Your task to perform on an android device: Open calendar and show me the second week of next month Image 0: 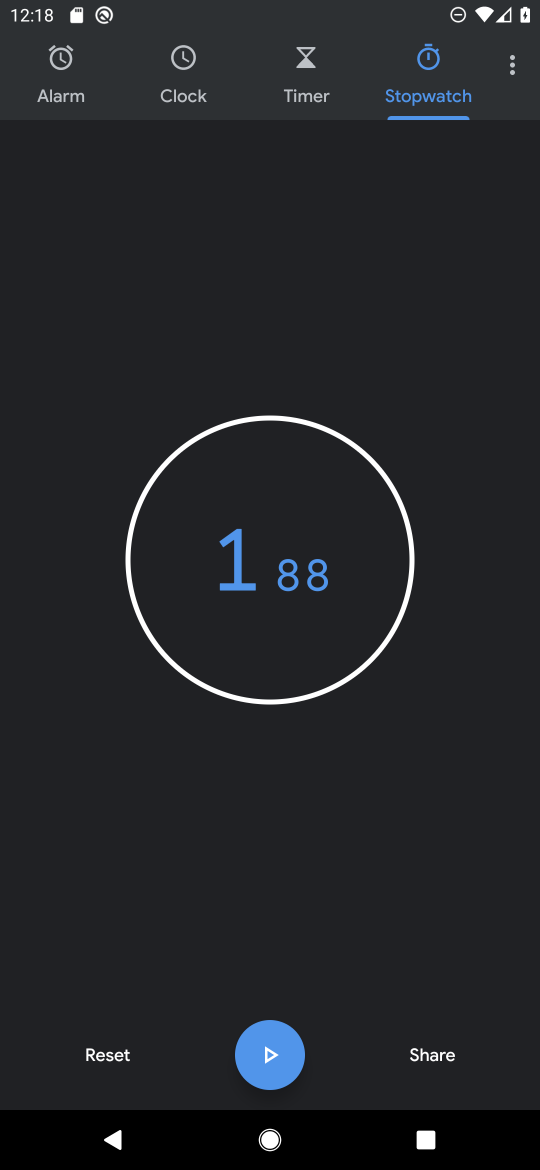
Step 0: press home button
Your task to perform on an android device: Open calendar and show me the second week of next month Image 1: 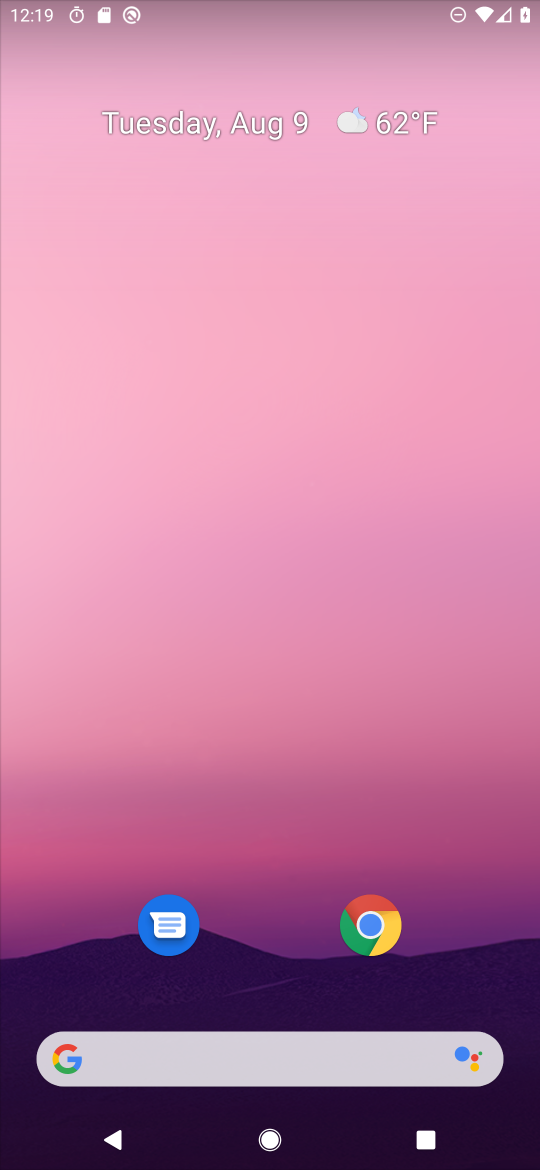
Step 1: drag from (264, 867) to (305, 124)
Your task to perform on an android device: Open calendar and show me the second week of next month Image 2: 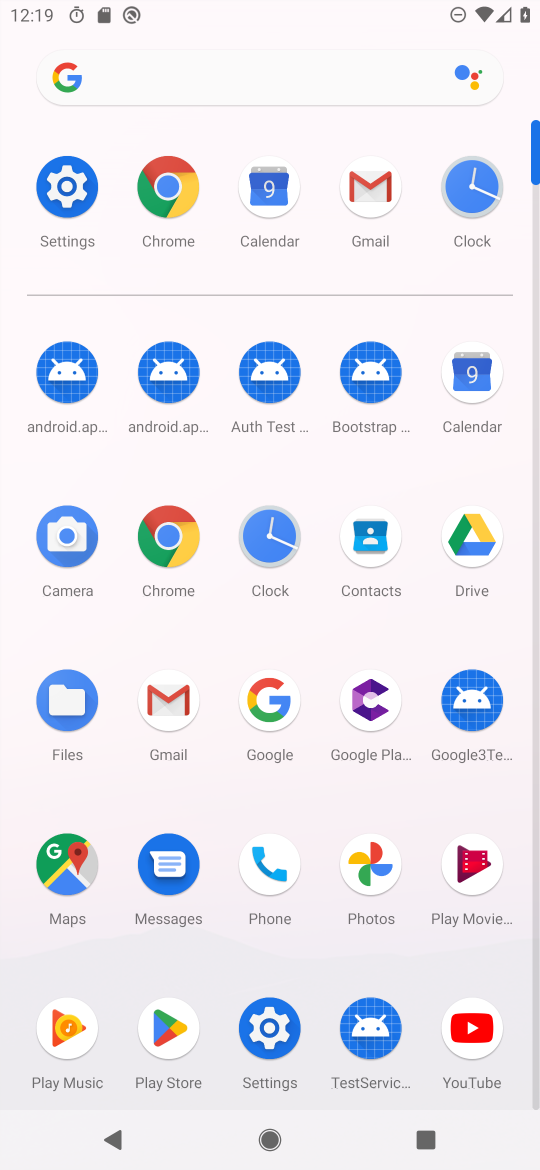
Step 2: click (465, 376)
Your task to perform on an android device: Open calendar and show me the second week of next month Image 3: 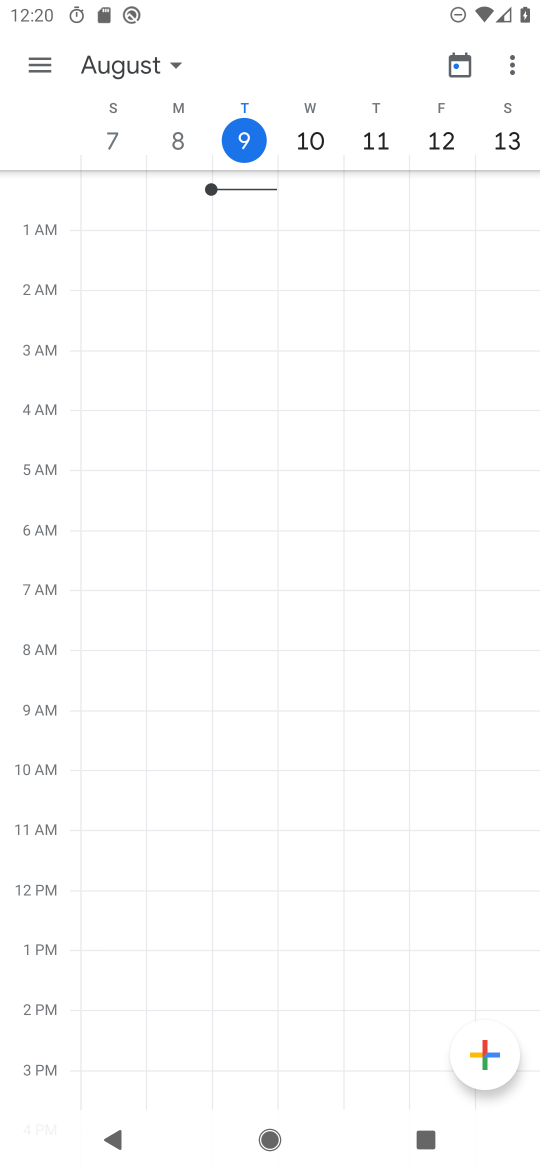
Step 3: click (159, 59)
Your task to perform on an android device: Open calendar and show me the second week of next month Image 4: 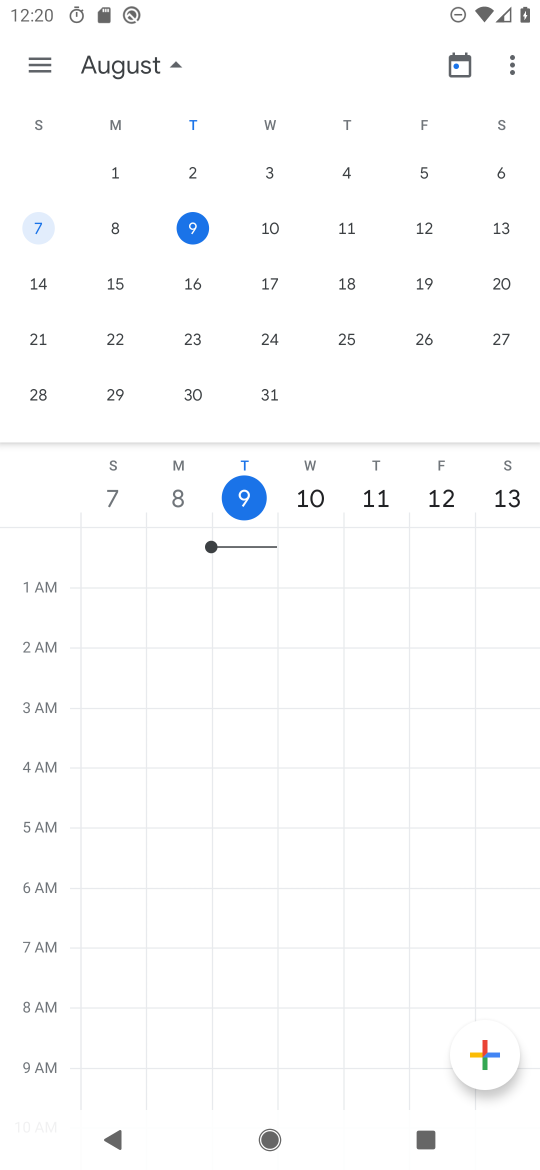
Step 4: drag from (457, 280) to (195, 257)
Your task to perform on an android device: Open calendar and show me the second week of next month Image 5: 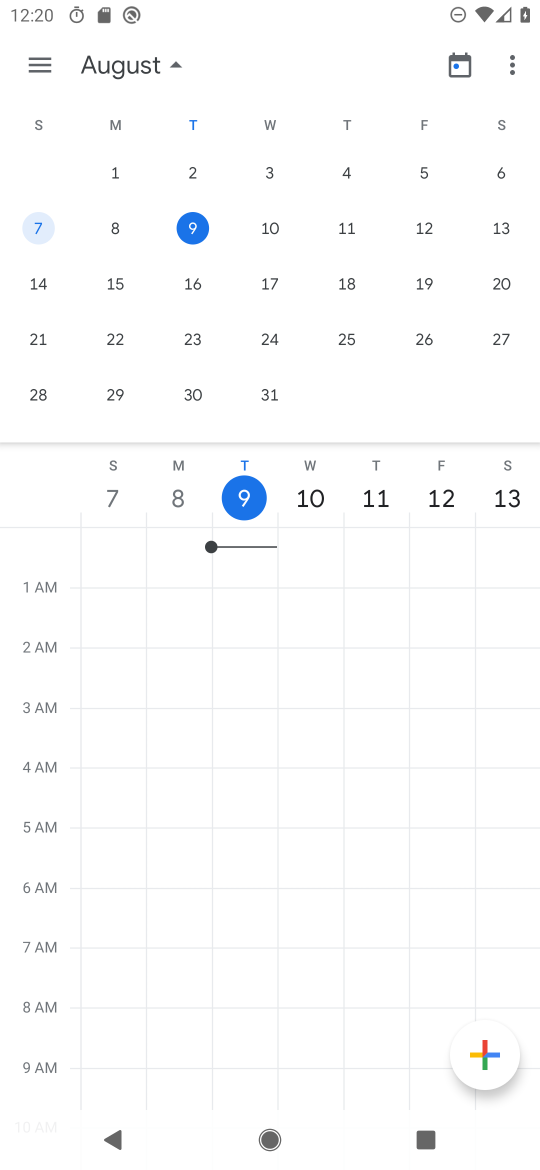
Step 5: drag from (468, 313) to (175, 319)
Your task to perform on an android device: Open calendar and show me the second week of next month Image 6: 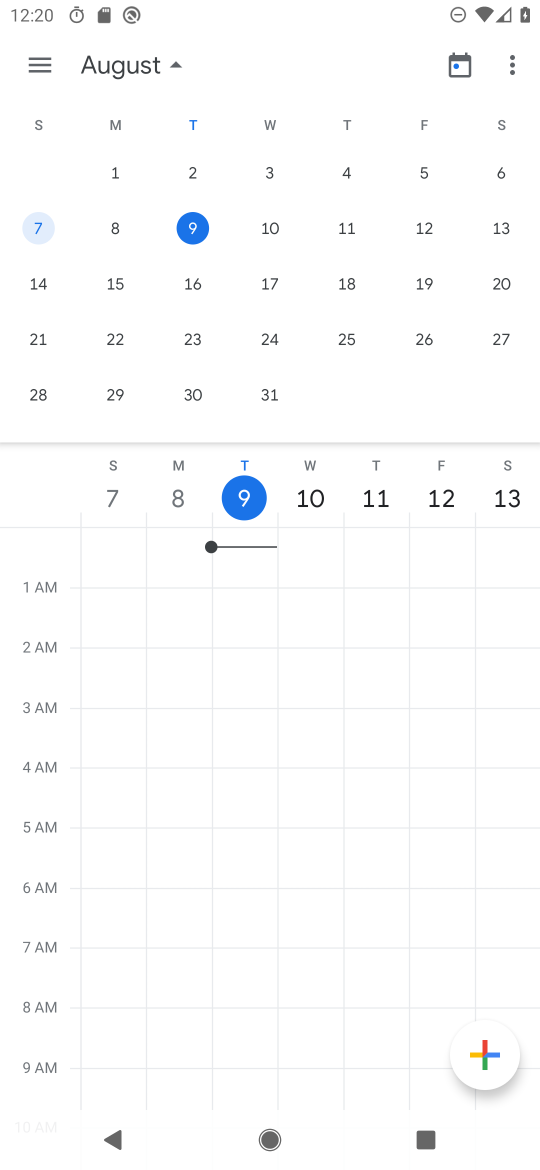
Step 6: drag from (469, 309) to (11, 302)
Your task to perform on an android device: Open calendar and show me the second week of next month Image 7: 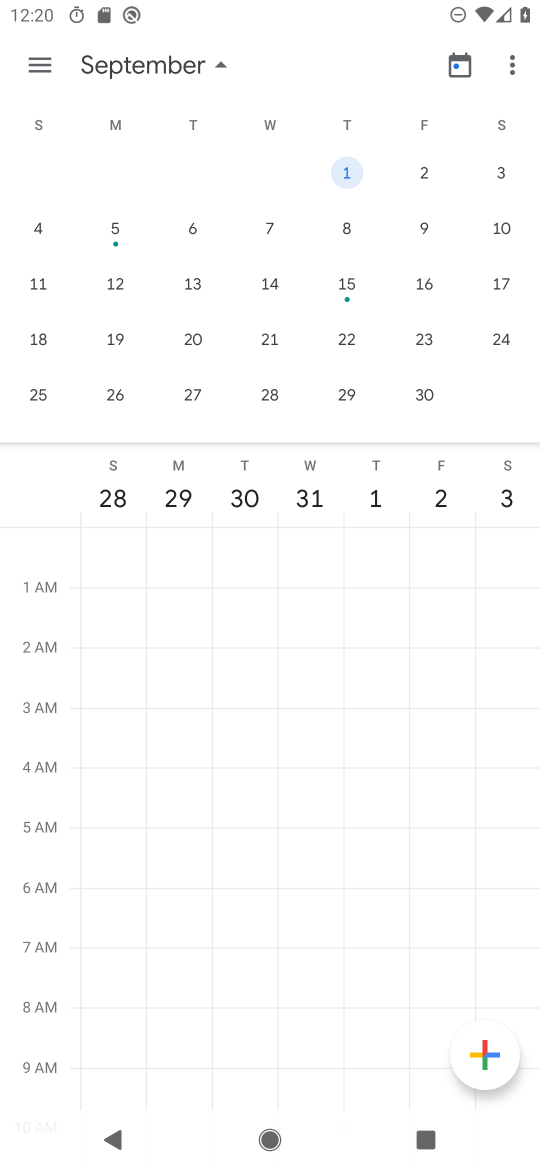
Step 7: click (122, 279)
Your task to perform on an android device: Open calendar and show me the second week of next month Image 8: 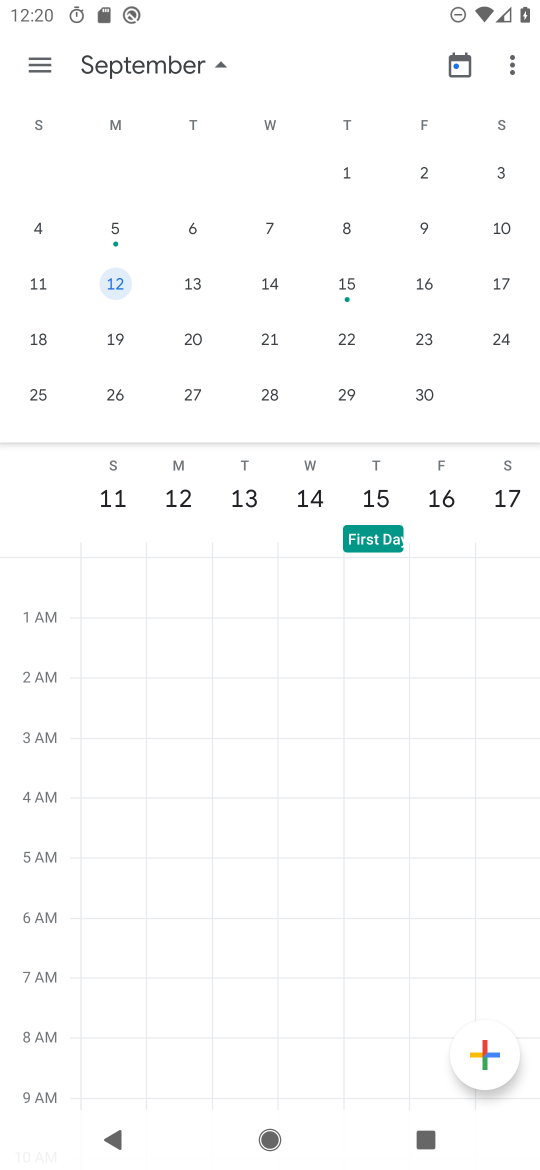
Step 8: task complete